Your task to perform on an android device: Open Chrome and go to settings Image 0: 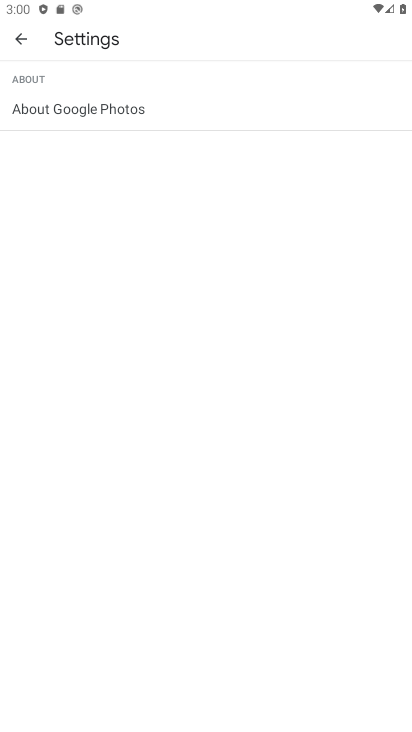
Step 0: press home button
Your task to perform on an android device: Open Chrome and go to settings Image 1: 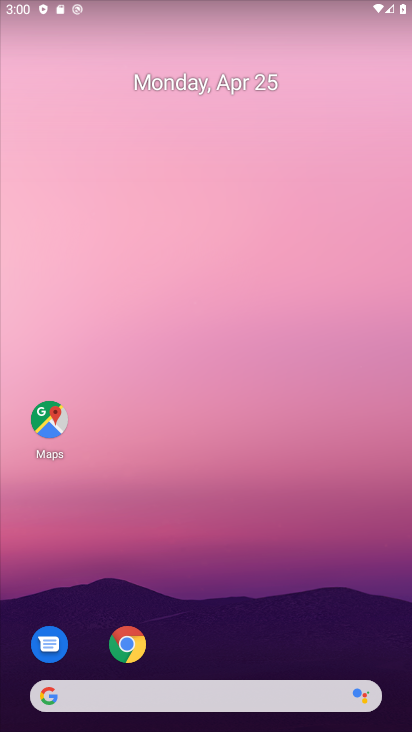
Step 1: click (138, 644)
Your task to perform on an android device: Open Chrome and go to settings Image 2: 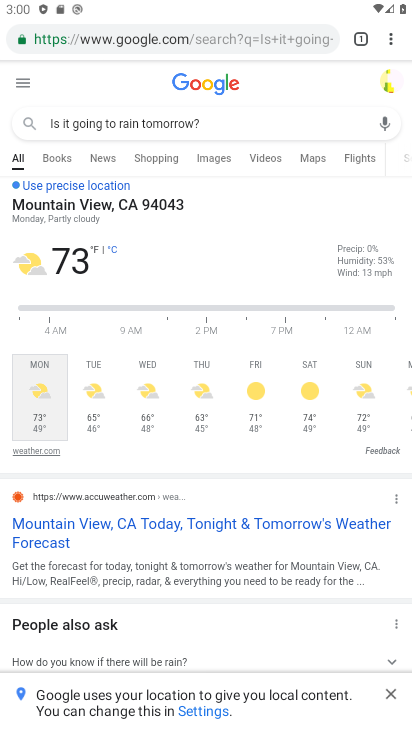
Step 2: task complete